Your task to perform on an android device: Open maps Image 0: 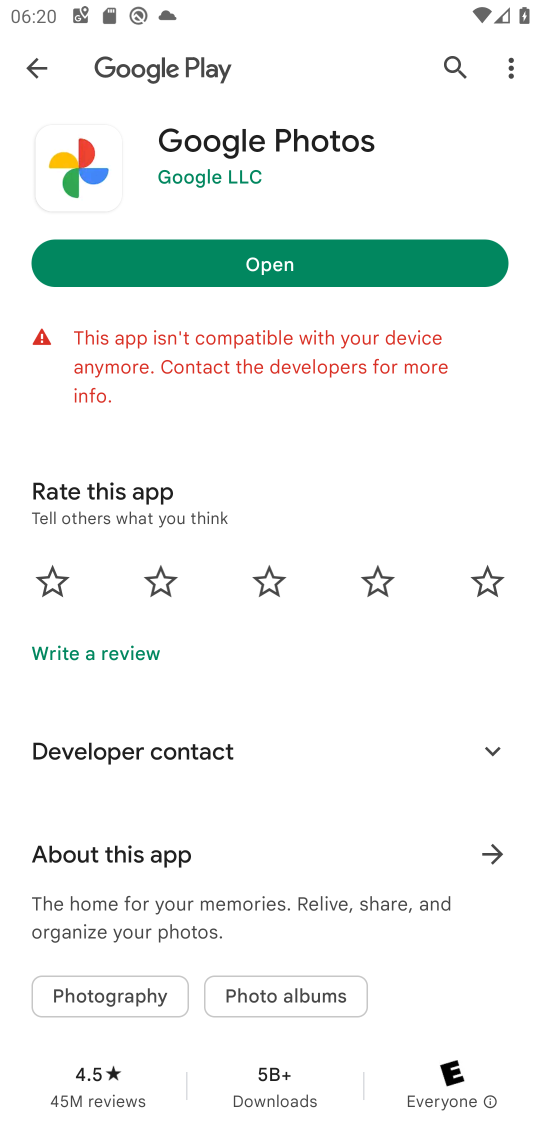
Step 0: press home button
Your task to perform on an android device: Open maps Image 1: 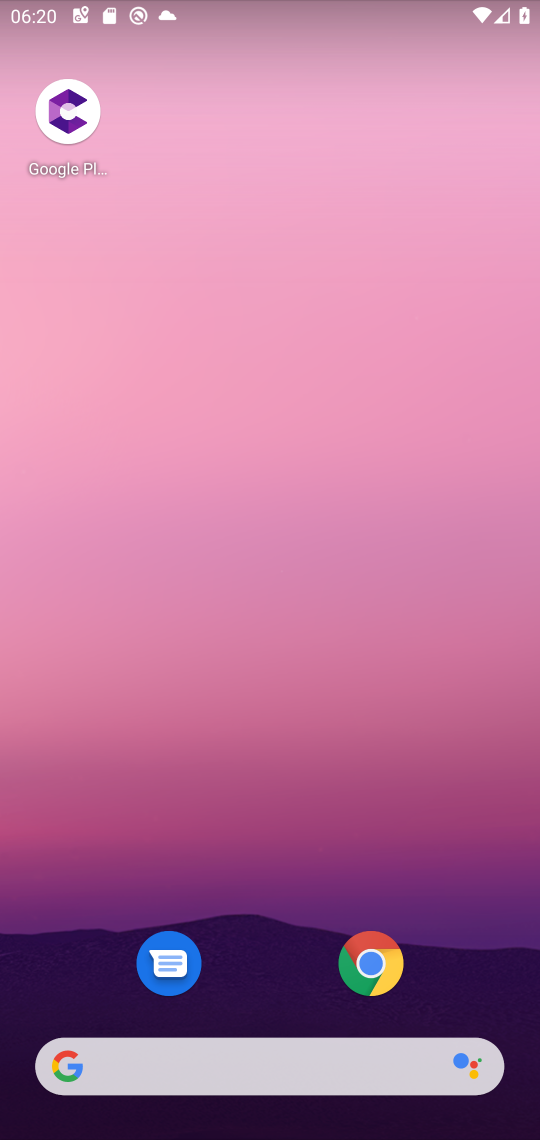
Step 1: click (305, 829)
Your task to perform on an android device: Open maps Image 2: 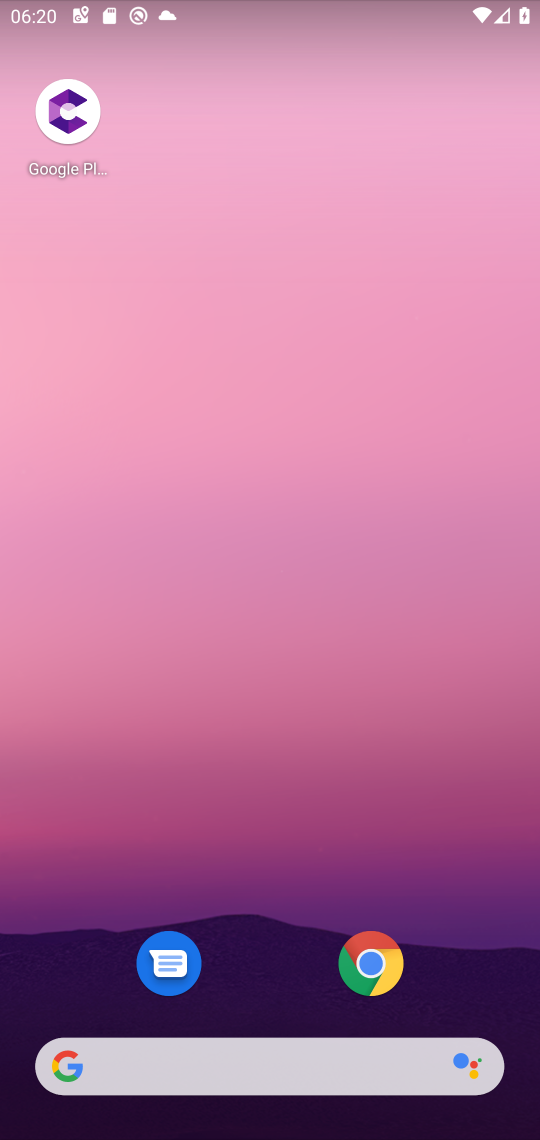
Step 2: drag from (305, 829) to (271, 33)
Your task to perform on an android device: Open maps Image 3: 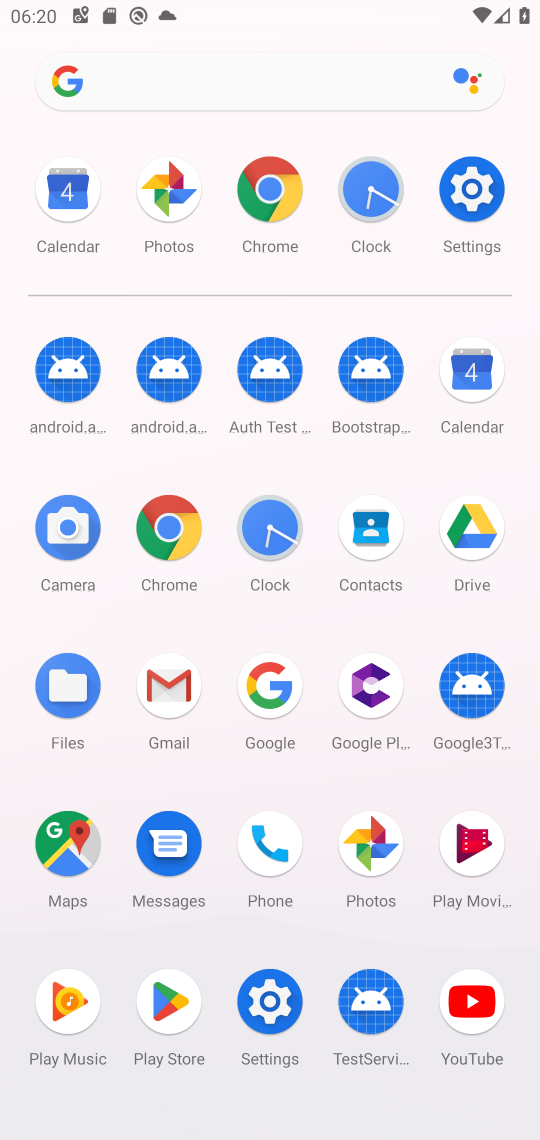
Step 3: click (61, 849)
Your task to perform on an android device: Open maps Image 4: 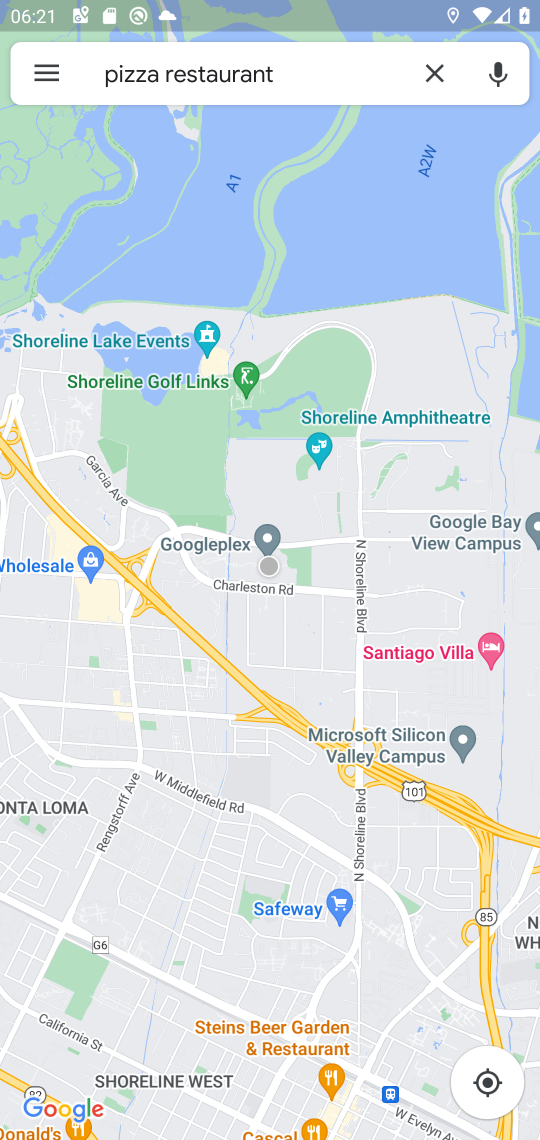
Step 4: click (435, 73)
Your task to perform on an android device: Open maps Image 5: 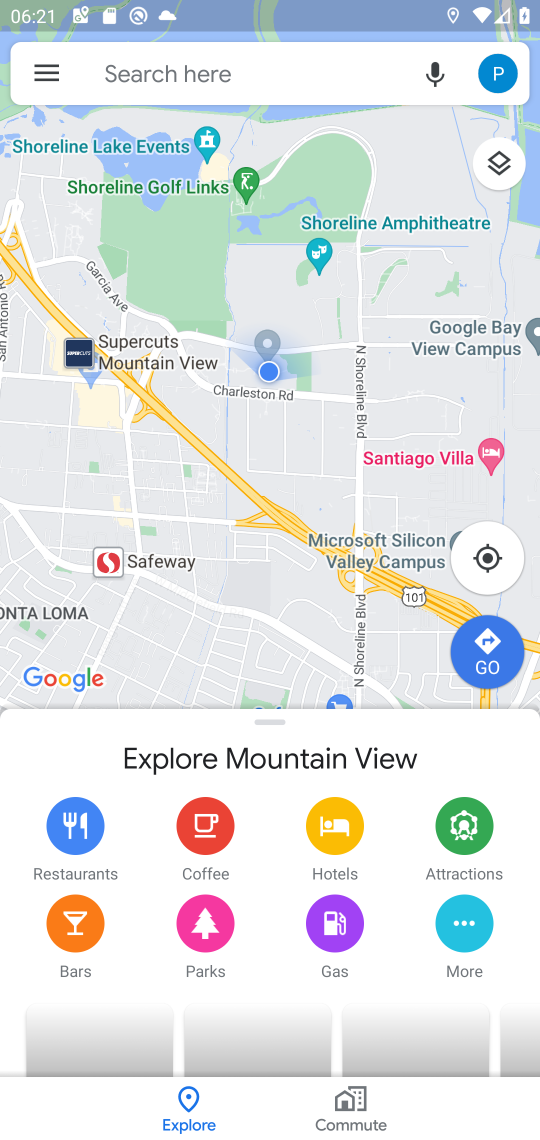
Step 5: task complete